Your task to perform on an android device: change text size in settings app Image 0: 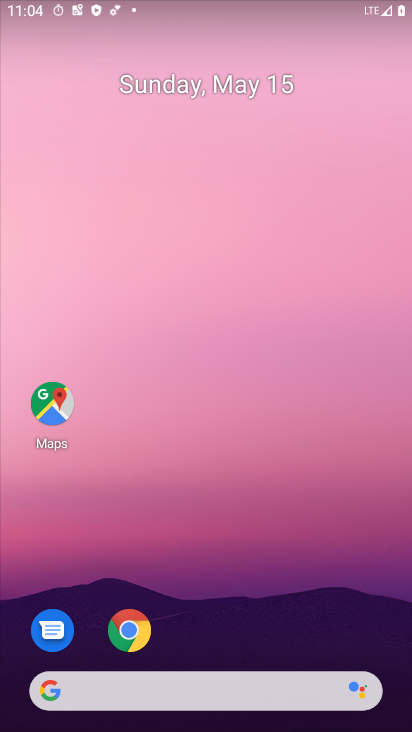
Step 0: drag from (183, 643) to (296, 56)
Your task to perform on an android device: change text size in settings app Image 1: 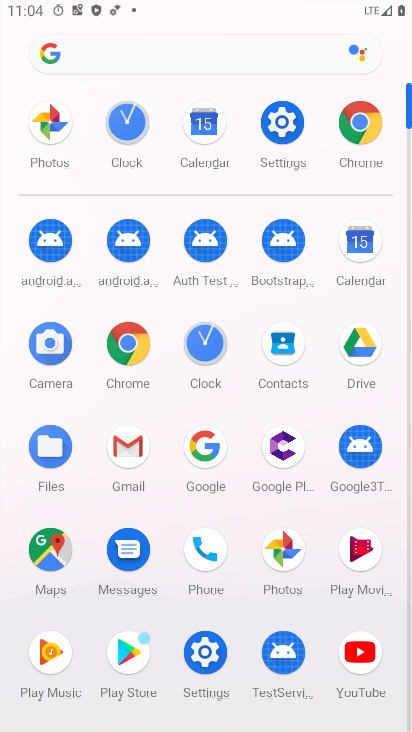
Step 1: click (280, 112)
Your task to perform on an android device: change text size in settings app Image 2: 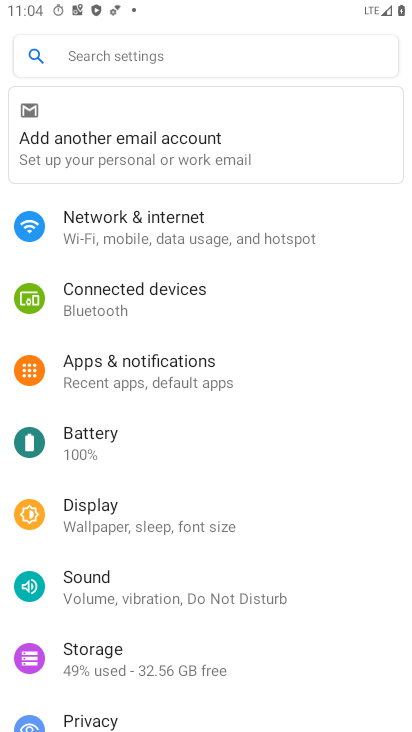
Step 2: click (126, 54)
Your task to perform on an android device: change text size in settings app Image 3: 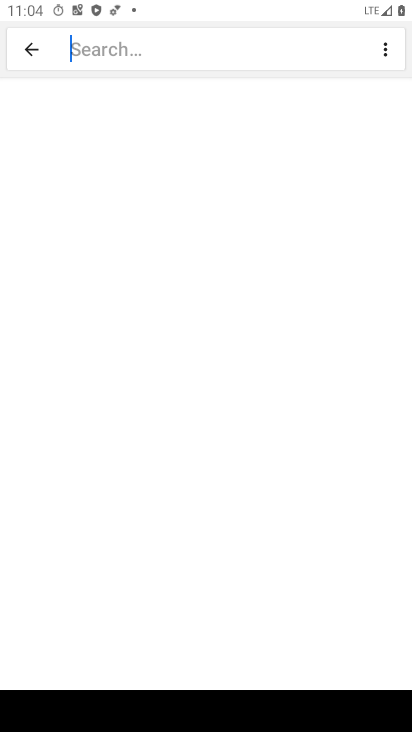
Step 3: type "text size"
Your task to perform on an android device: change text size in settings app Image 4: 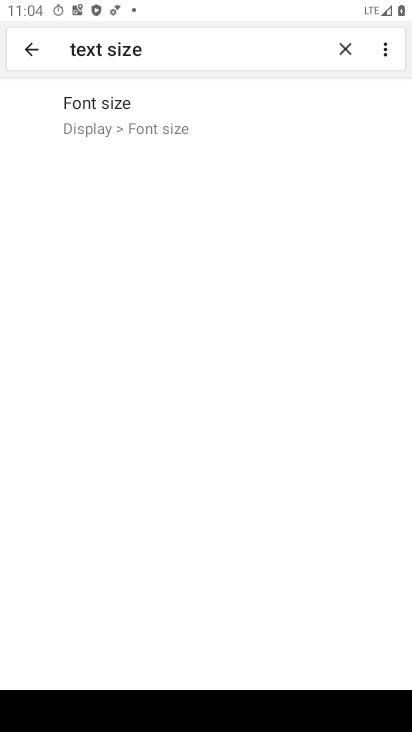
Step 4: click (107, 123)
Your task to perform on an android device: change text size in settings app Image 5: 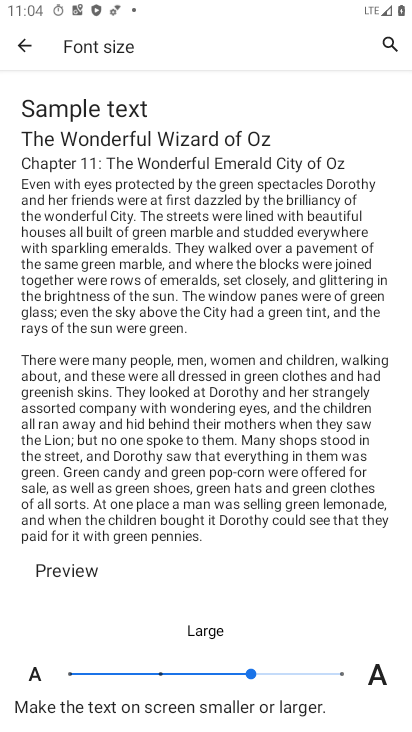
Step 5: task complete